Your task to perform on an android device: set the stopwatch Image 0: 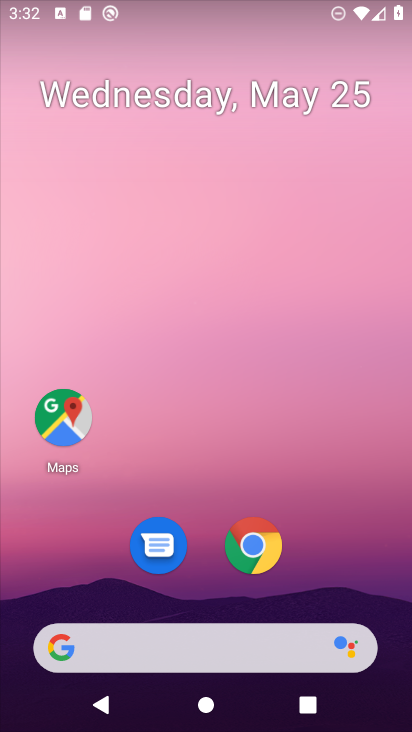
Step 0: drag from (349, 585) to (293, 247)
Your task to perform on an android device: set the stopwatch Image 1: 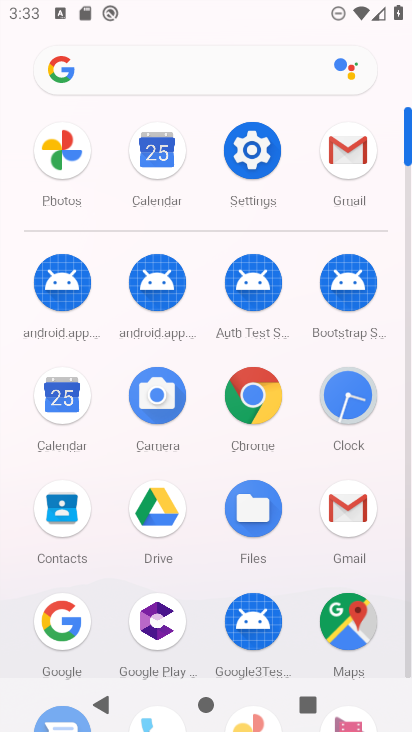
Step 1: click (364, 415)
Your task to perform on an android device: set the stopwatch Image 2: 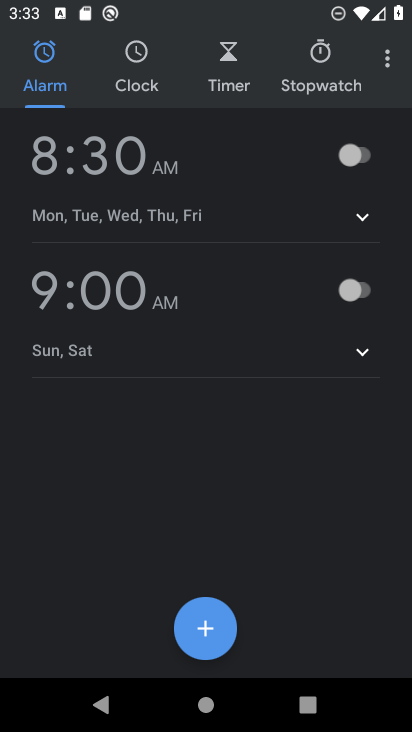
Step 2: click (319, 66)
Your task to perform on an android device: set the stopwatch Image 3: 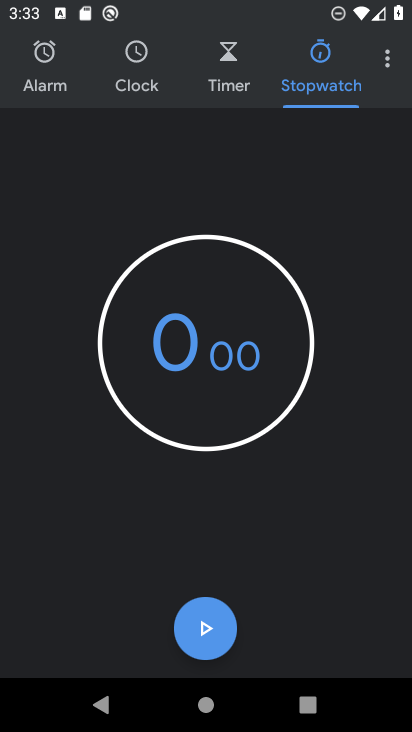
Step 3: task complete